Your task to perform on an android device: Go to Yahoo.com Image 0: 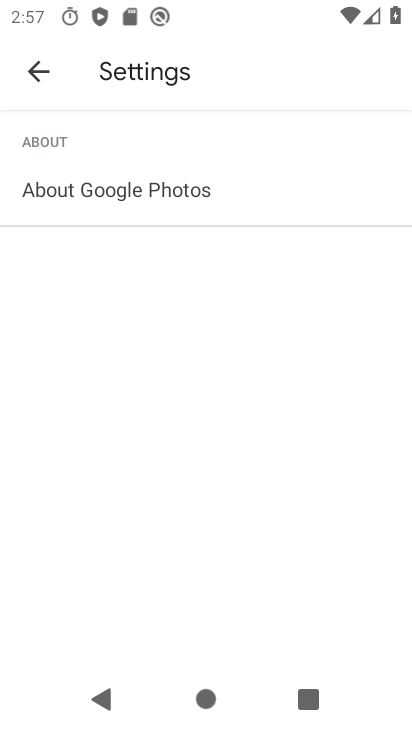
Step 0: press home button
Your task to perform on an android device: Go to Yahoo.com Image 1: 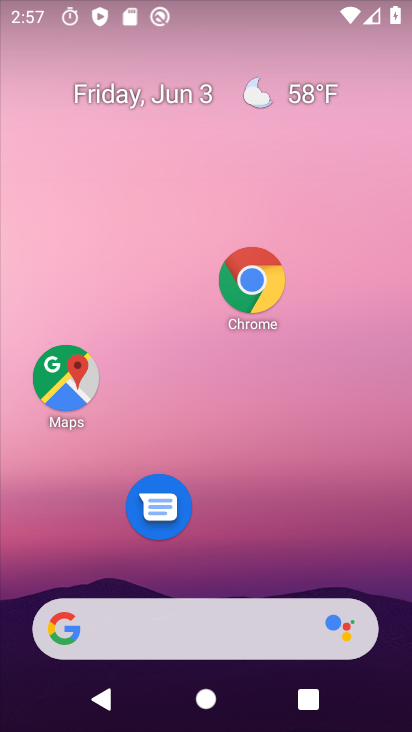
Step 1: click (256, 283)
Your task to perform on an android device: Go to Yahoo.com Image 2: 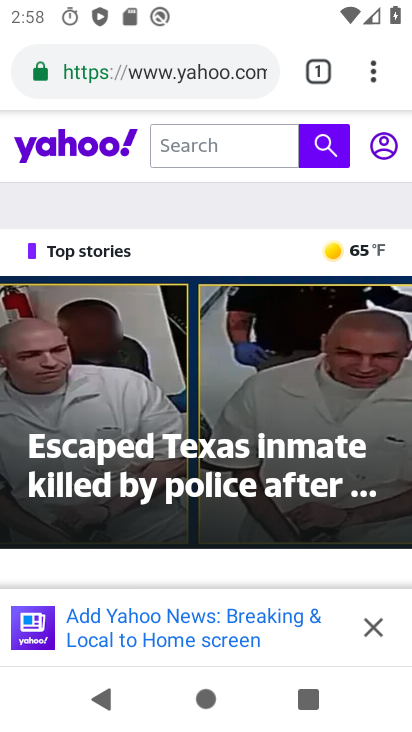
Step 2: task complete